Your task to perform on an android device: Check the weather Image 0: 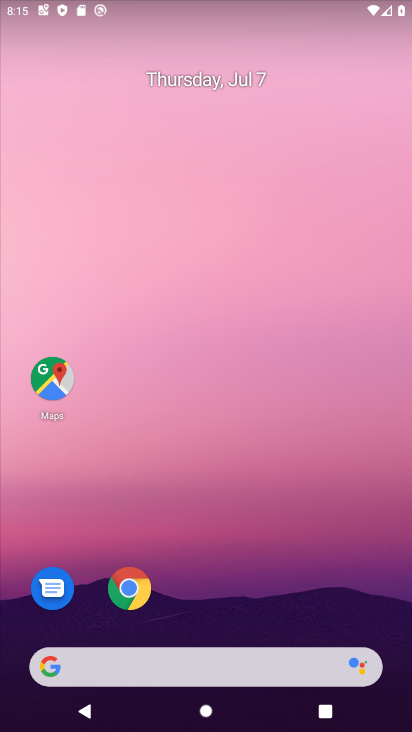
Step 0: drag from (192, 586) to (335, 77)
Your task to perform on an android device: Check the weather Image 1: 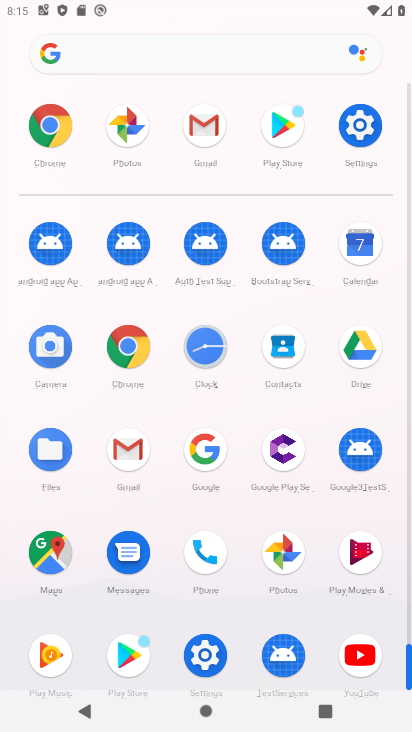
Step 1: click (204, 57)
Your task to perform on an android device: Check the weather Image 2: 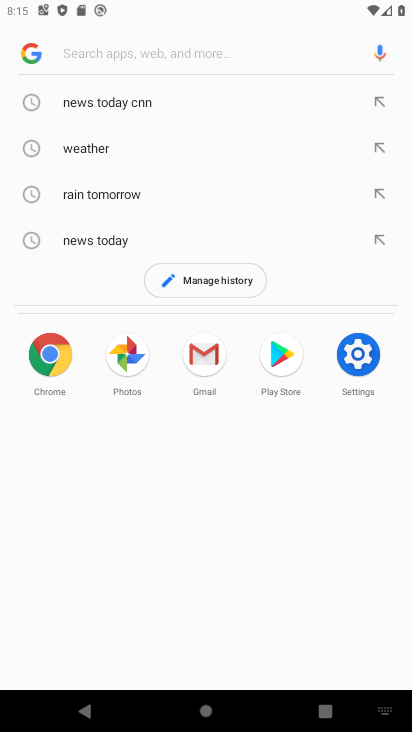
Step 2: click (102, 153)
Your task to perform on an android device: Check the weather Image 3: 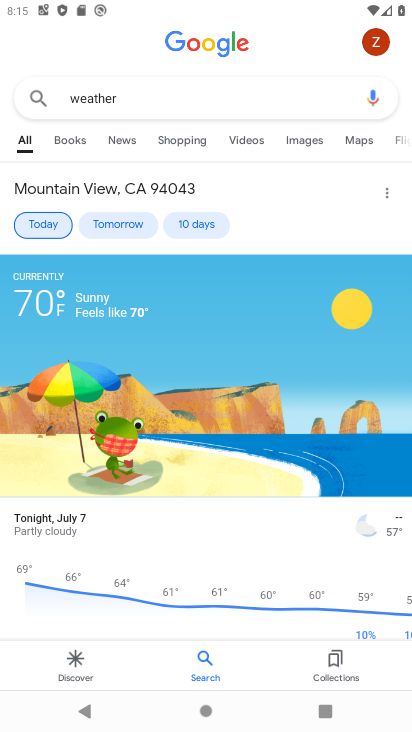
Step 3: task complete